Your task to perform on an android device: turn on the 12-hour format for clock Image 0: 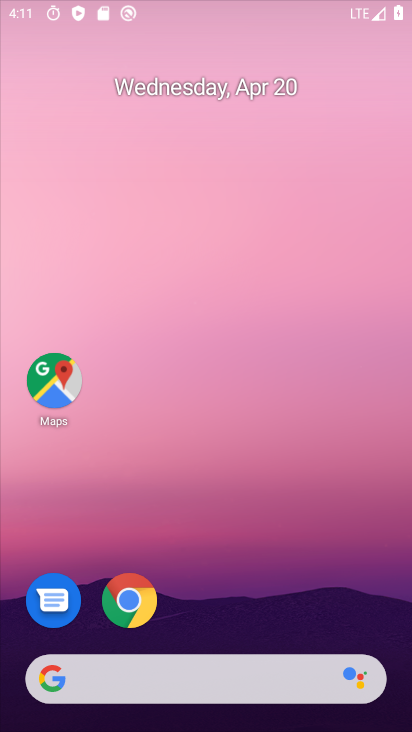
Step 0: drag from (225, 604) to (212, 212)
Your task to perform on an android device: turn on the 12-hour format for clock Image 1: 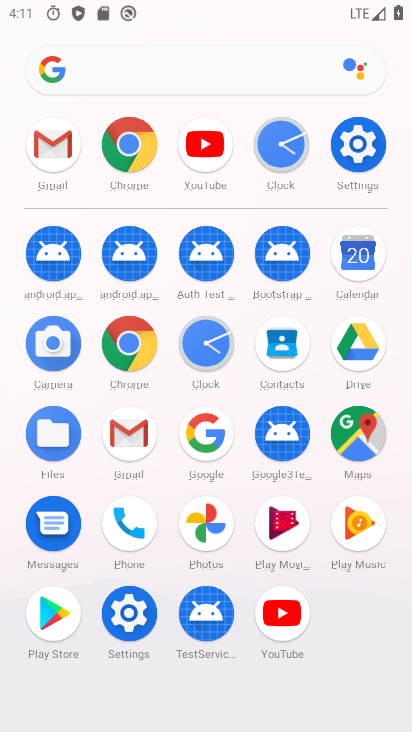
Step 1: click (203, 334)
Your task to perform on an android device: turn on the 12-hour format for clock Image 2: 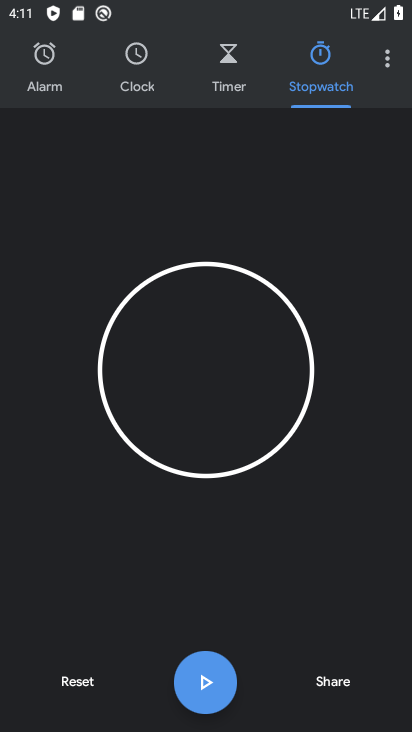
Step 2: click (383, 59)
Your task to perform on an android device: turn on the 12-hour format for clock Image 3: 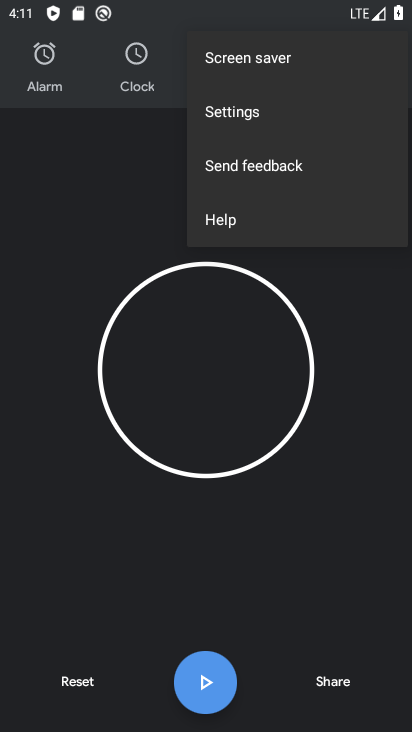
Step 3: click (239, 128)
Your task to perform on an android device: turn on the 12-hour format for clock Image 4: 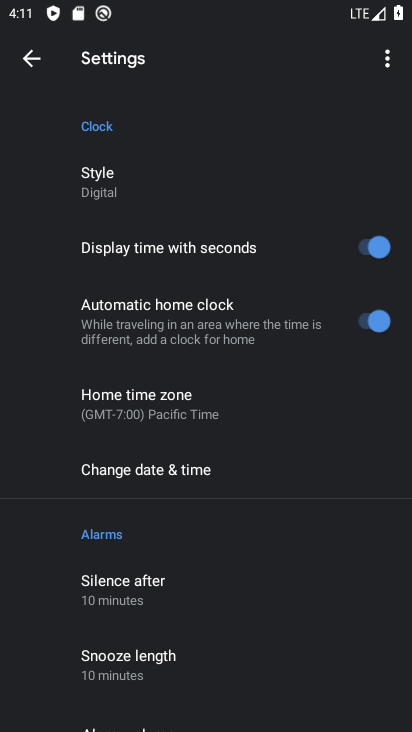
Step 4: click (164, 471)
Your task to perform on an android device: turn on the 12-hour format for clock Image 5: 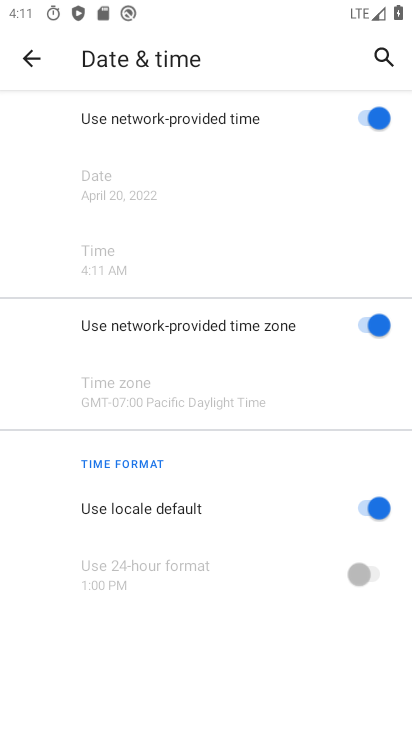
Step 5: task complete